Your task to perform on an android device: Find coffee shops on Maps Image 0: 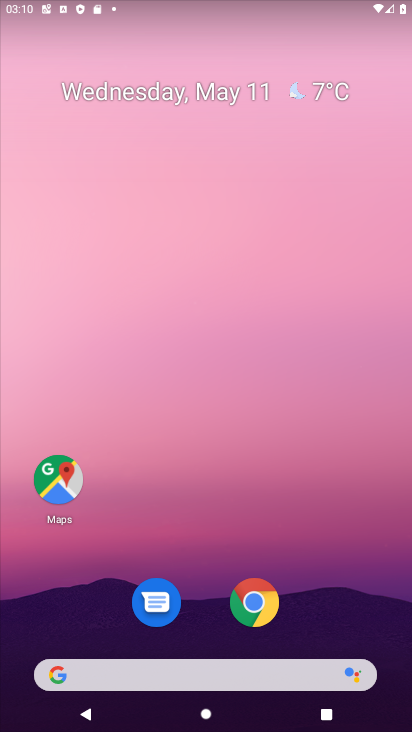
Step 0: click (63, 482)
Your task to perform on an android device: Find coffee shops on Maps Image 1: 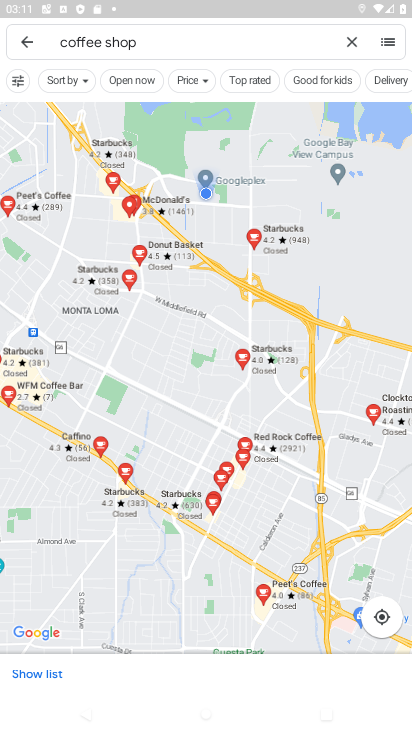
Step 1: task complete